Your task to perform on an android device: Go to wifi settings Image 0: 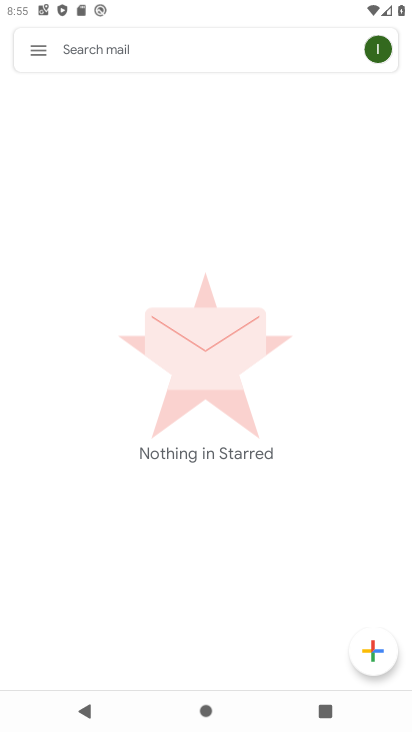
Step 0: press home button
Your task to perform on an android device: Go to wifi settings Image 1: 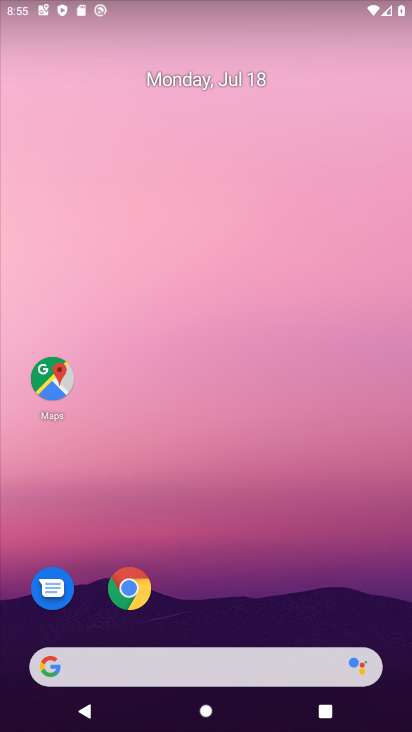
Step 1: drag from (259, 547) to (260, 38)
Your task to perform on an android device: Go to wifi settings Image 2: 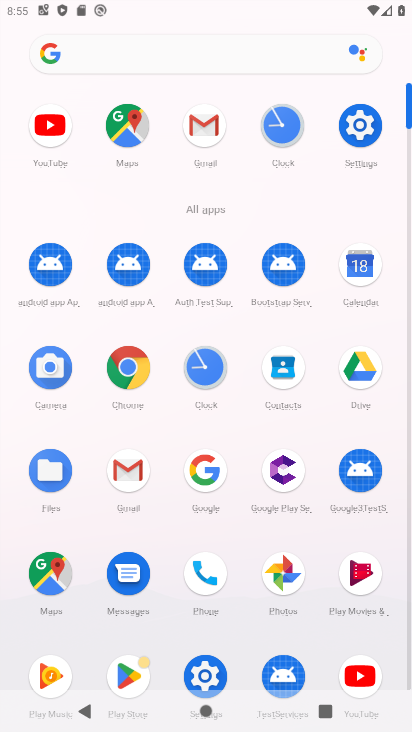
Step 2: click (364, 122)
Your task to perform on an android device: Go to wifi settings Image 3: 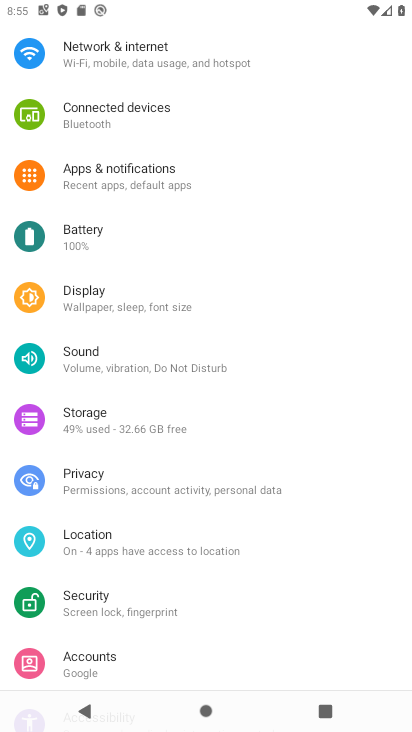
Step 3: click (189, 56)
Your task to perform on an android device: Go to wifi settings Image 4: 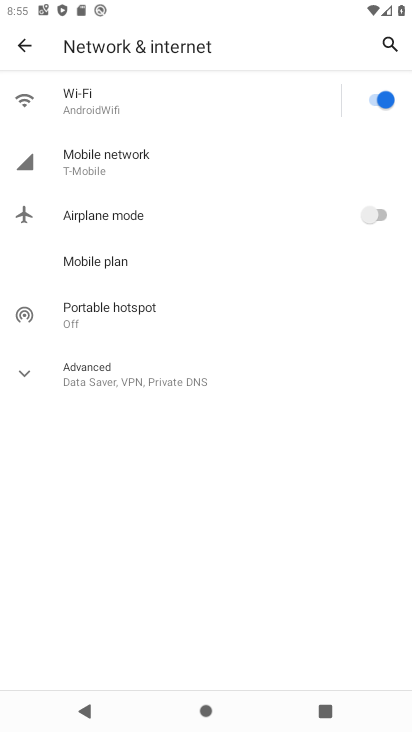
Step 4: click (92, 100)
Your task to perform on an android device: Go to wifi settings Image 5: 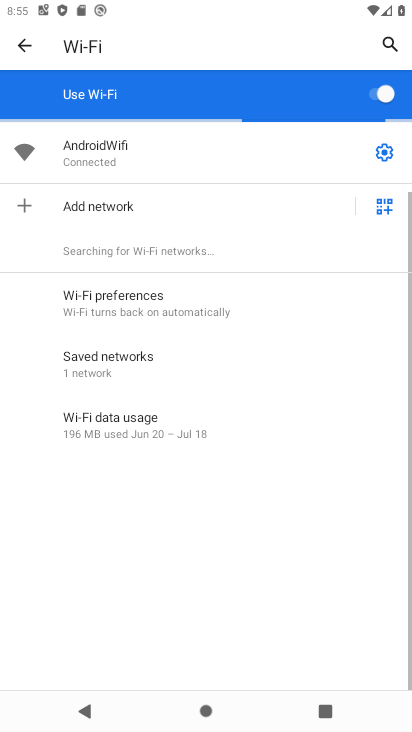
Step 5: task complete